Your task to perform on an android device: Open Yahoo.com Image 0: 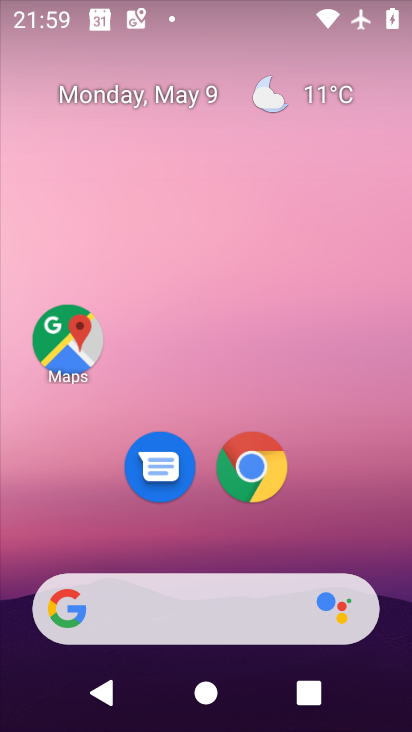
Step 0: drag from (308, 508) to (320, 159)
Your task to perform on an android device: Open Yahoo.com Image 1: 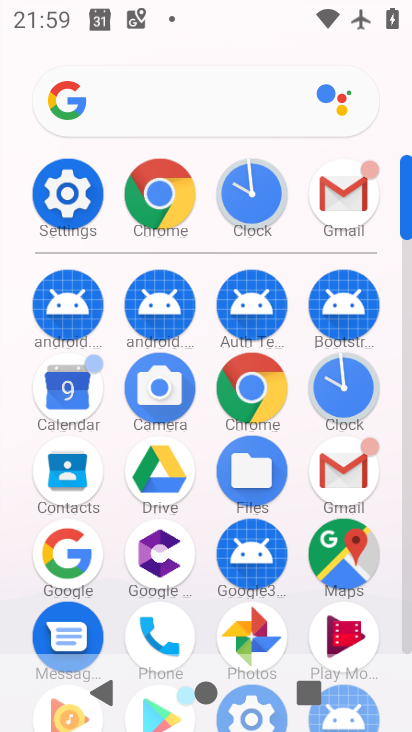
Step 1: click (150, 184)
Your task to perform on an android device: Open Yahoo.com Image 2: 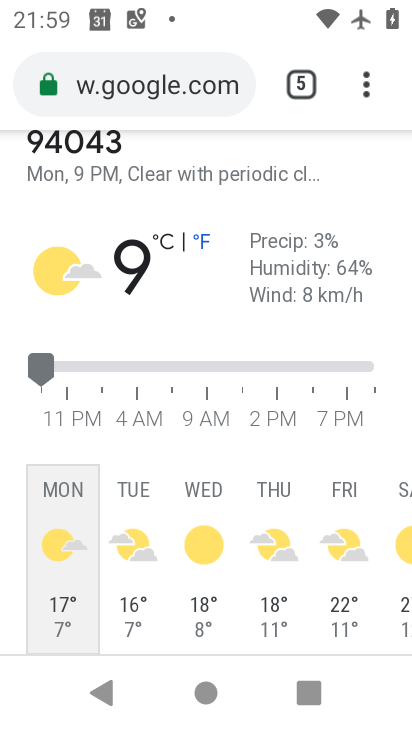
Step 2: click (349, 72)
Your task to perform on an android device: Open Yahoo.com Image 3: 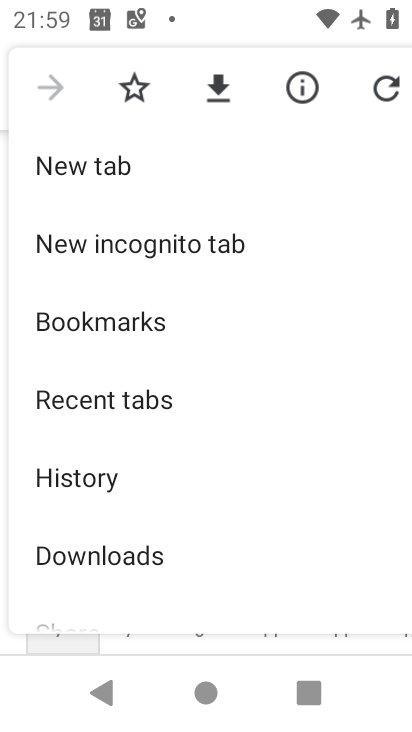
Step 3: click (141, 160)
Your task to perform on an android device: Open Yahoo.com Image 4: 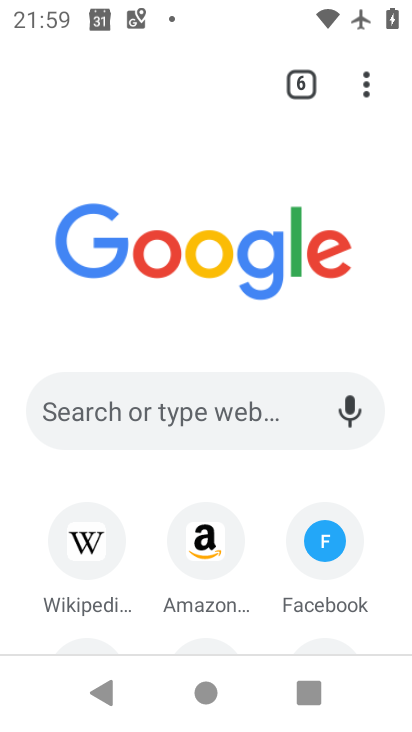
Step 4: drag from (302, 499) to (334, 204)
Your task to perform on an android device: Open Yahoo.com Image 5: 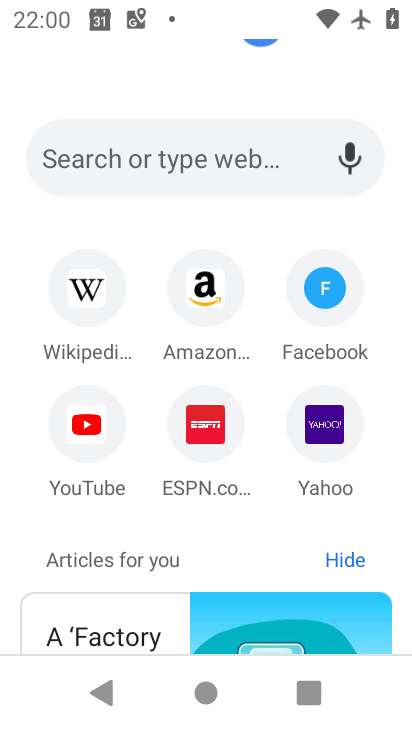
Step 5: click (330, 421)
Your task to perform on an android device: Open Yahoo.com Image 6: 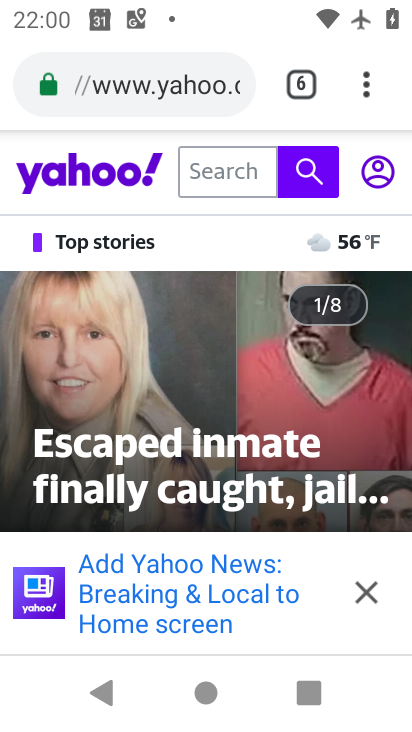
Step 6: click (366, 593)
Your task to perform on an android device: Open Yahoo.com Image 7: 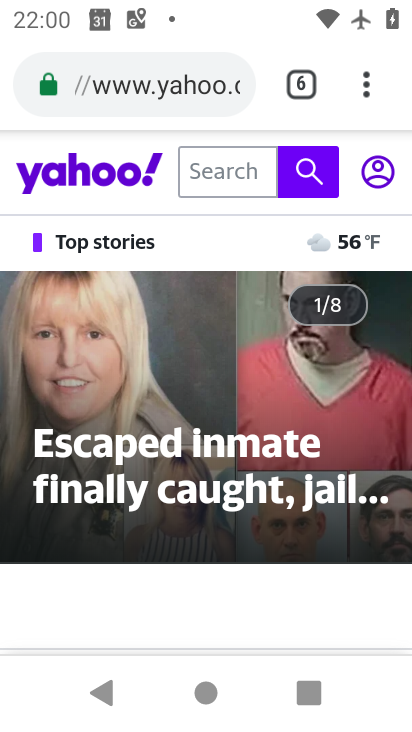
Step 7: task complete